Your task to perform on an android device: turn smart compose on in the gmail app Image 0: 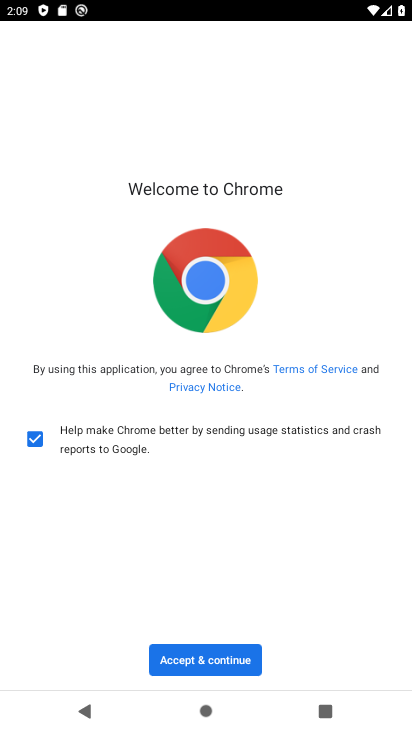
Step 0: press home button
Your task to perform on an android device: turn smart compose on in the gmail app Image 1: 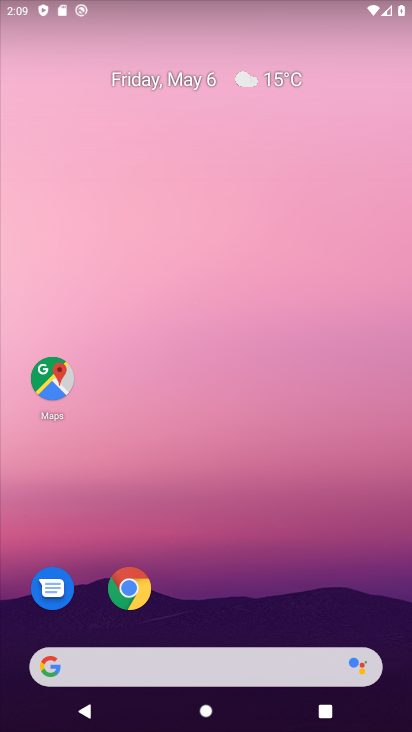
Step 1: drag from (222, 635) to (137, 40)
Your task to perform on an android device: turn smart compose on in the gmail app Image 2: 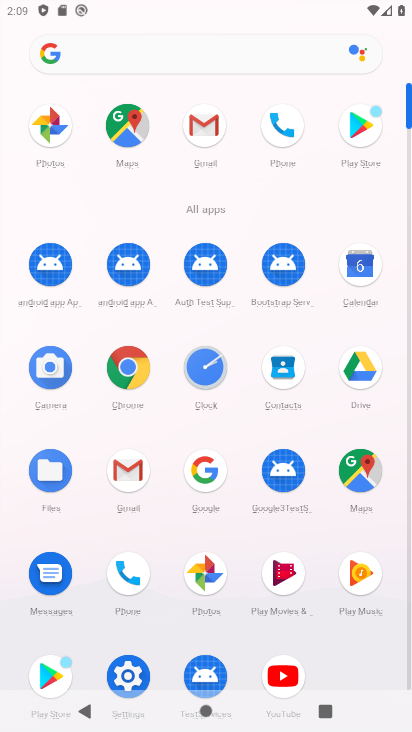
Step 2: click (136, 470)
Your task to perform on an android device: turn smart compose on in the gmail app Image 3: 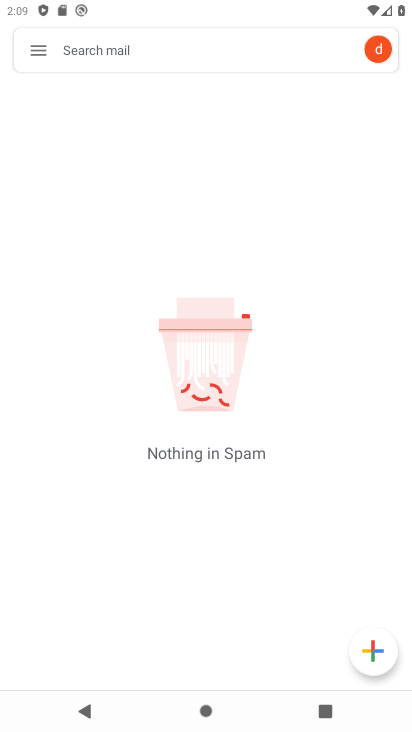
Step 3: click (35, 55)
Your task to perform on an android device: turn smart compose on in the gmail app Image 4: 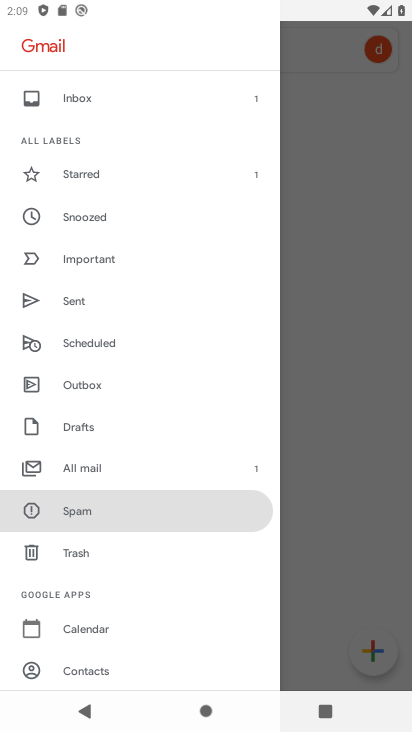
Step 4: drag from (154, 570) to (98, 230)
Your task to perform on an android device: turn smart compose on in the gmail app Image 5: 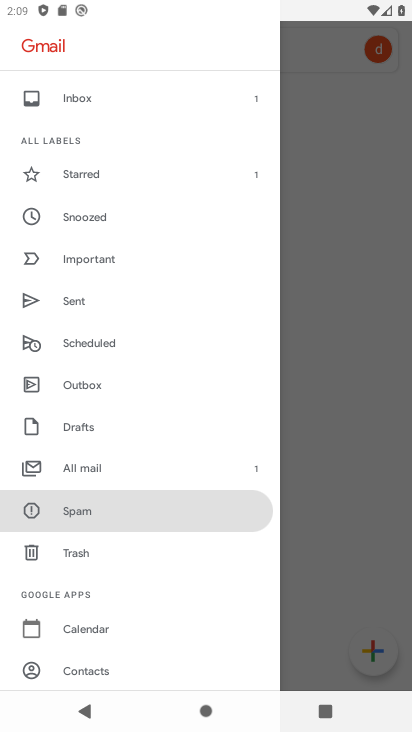
Step 5: drag from (167, 574) to (58, 59)
Your task to perform on an android device: turn smart compose on in the gmail app Image 6: 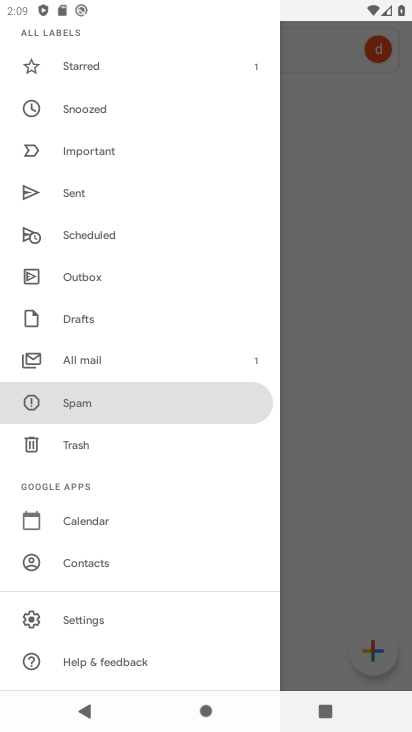
Step 6: click (93, 611)
Your task to perform on an android device: turn smart compose on in the gmail app Image 7: 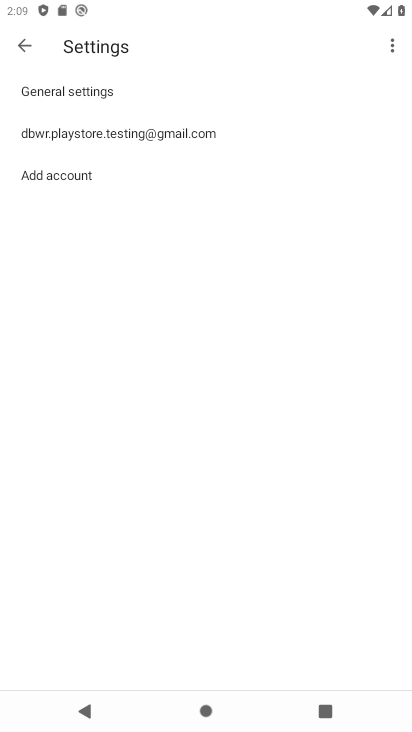
Step 7: click (118, 136)
Your task to perform on an android device: turn smart compose on in the gmail app Image 8: 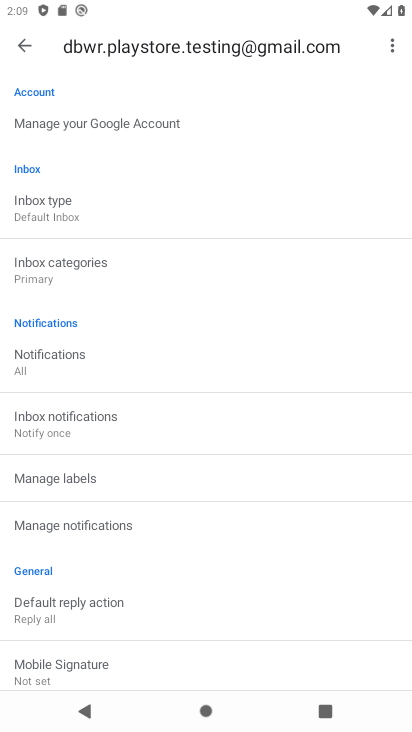
Step 8: drag from (108, 523) to (117, 151)
Your task to perform on an android device: turn smart compose on in the gmail app Image 9: 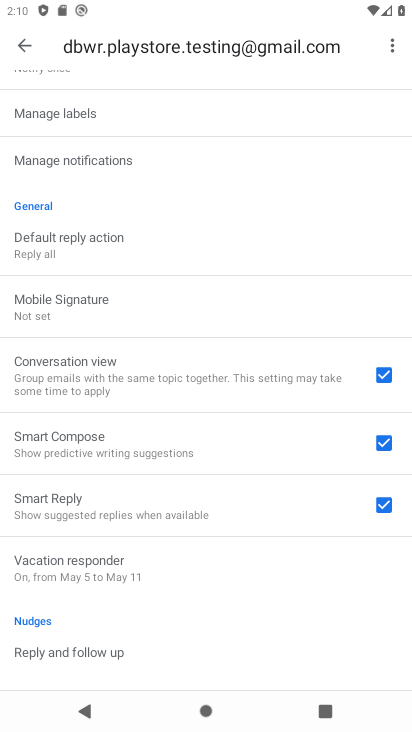
Step 9: click (168, 457)
Your task to perform on an android device: turn smart compose on in the gmail app Image 10: 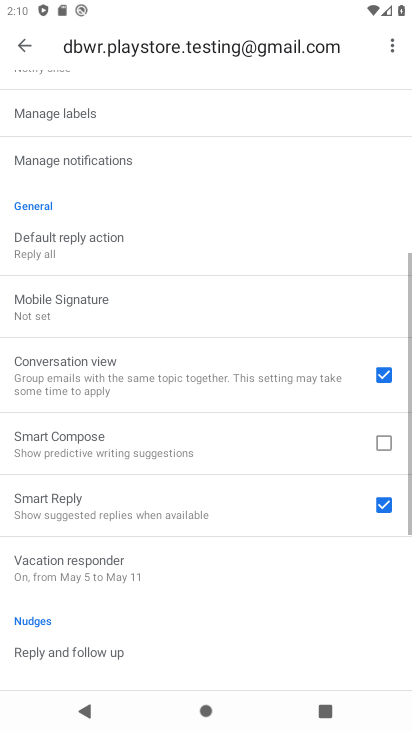
Step 10: click (261, 444)
Your task to perform on an android device: turn smart compose on in the gmail app Image 11: 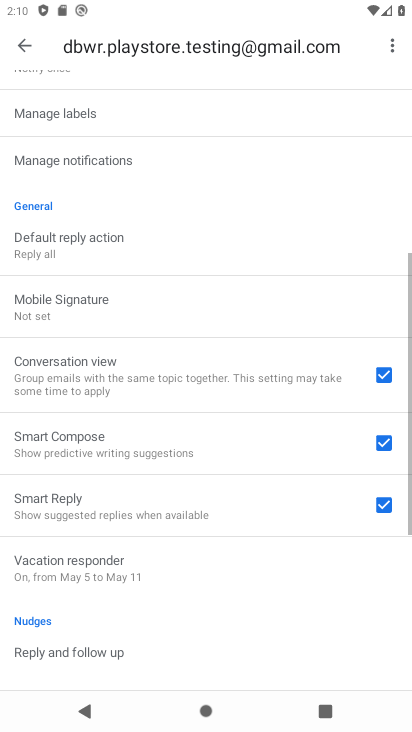
Step 11: task complete